Your task to perform on an android device: Go to calendar. Show me events next week Image 0: 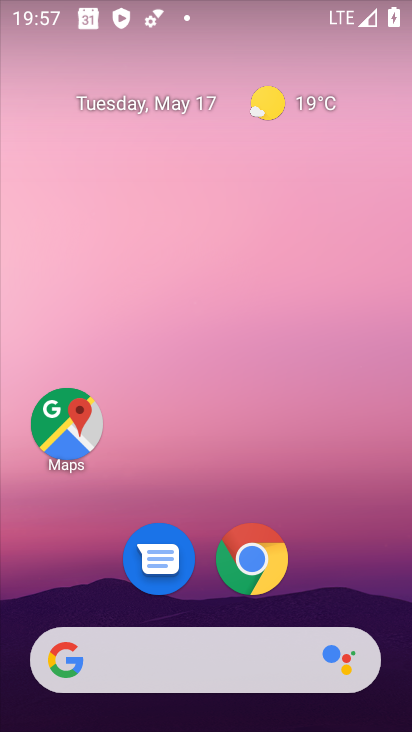
Step 0: drag from (202, 610) to (6, 101)
Your task to perform on an android device: Go to calendar. Show me events next week Image 1: 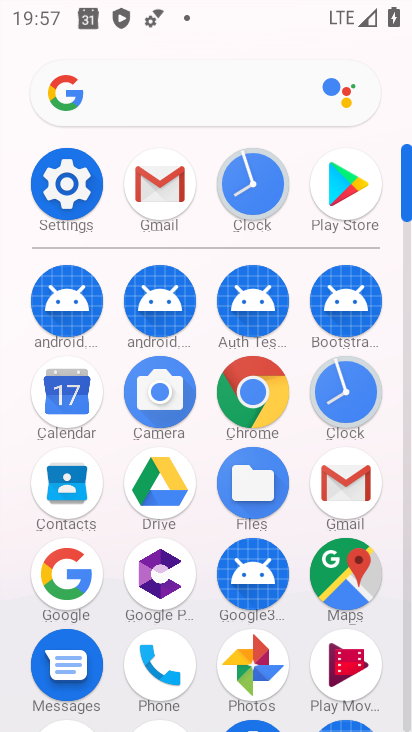
Step 1: drag from (187, 626) to (271, 121)
Your task to perform on an android device: Go to calendar. Show me events next week Image 2: 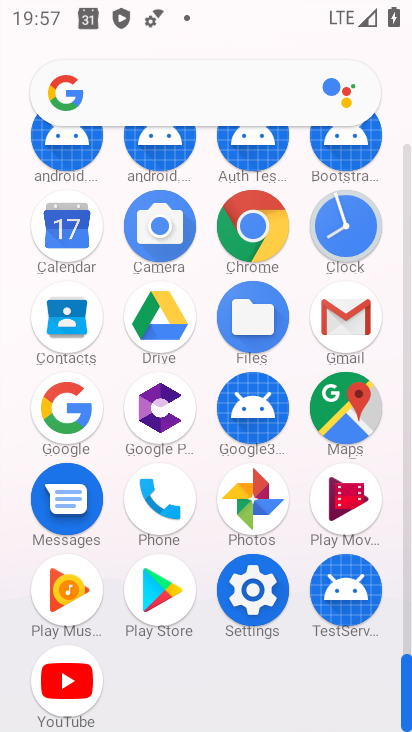
Step 2: click (53, 236)
Your task to perform on an android device: Go to calendar. Show me events next week Image 3: 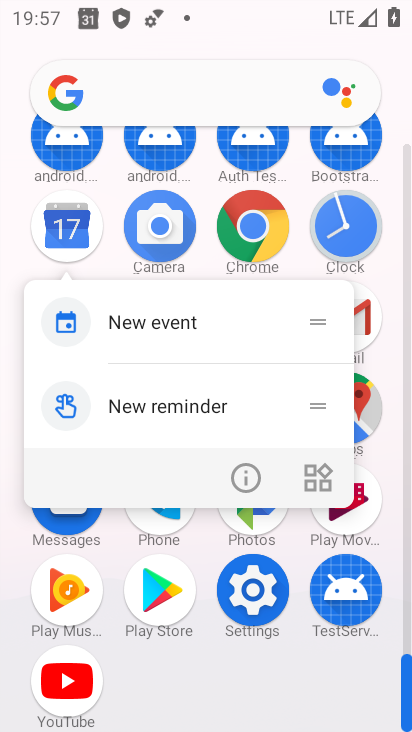
Step 3: click (240, 474)
Your task to perform on an android device: Go to calendar. Show me events next week Image 4: 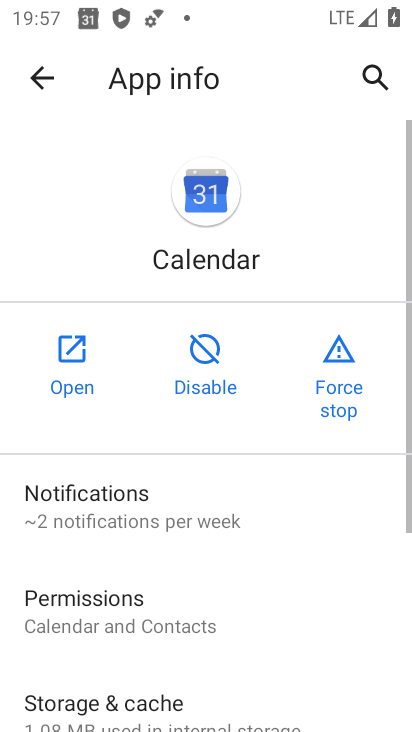
Step 4: click (57, 373)
Your task to perform on an android device: Go to calendar. Show me events next week Image 5: 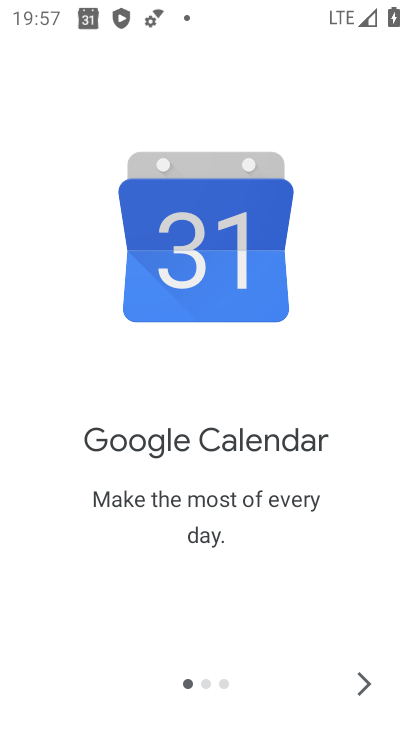
Step 5: click (372, 682)
Your task to perform on an android device: Go to calendar. Show me events next week Image 6: 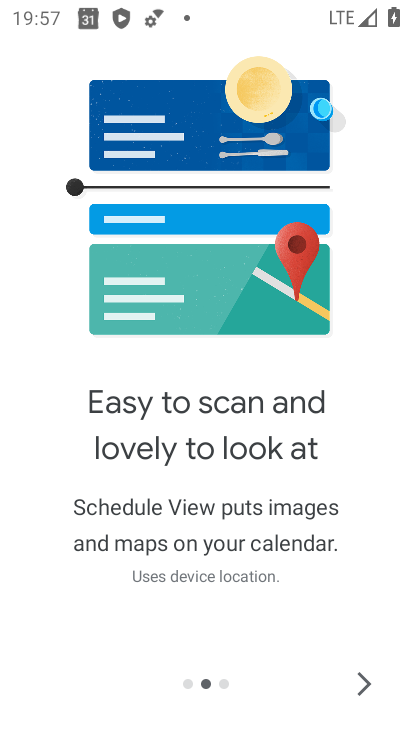
Step 6: click (376, 691)
Your task to perform on an android device: Go to calendar. Show me events next week Image 7: 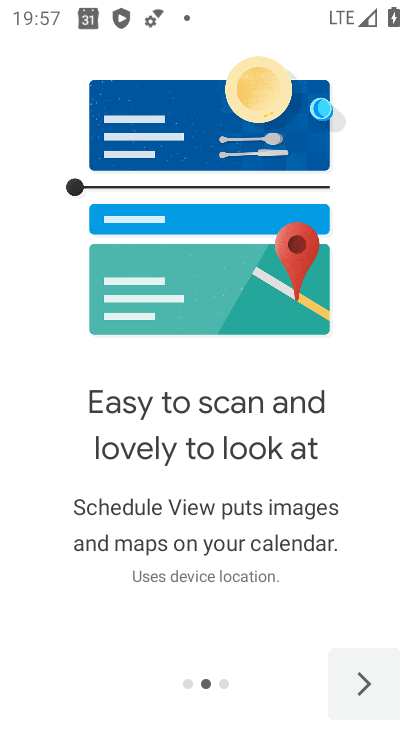
Step 7: click (376, 691)
Your task to perform on an android device: Go to calendar. Show me events next week Image 8: 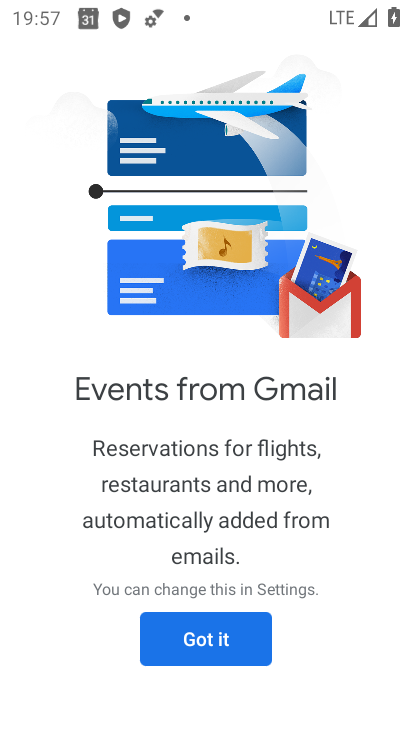
Step 8: click (201, 655)
Your task to perform on an android device: Go to calendar. Show me events next week Image 9: 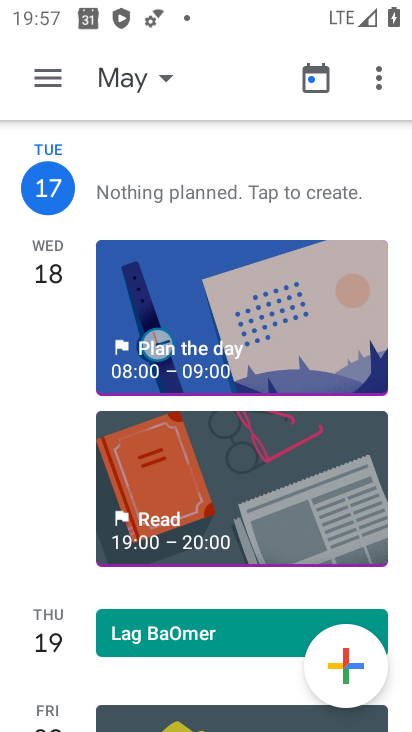
Step 9: click (42, 65)
Your task to perform on an android device: Go to calendar. Show me events next week Image 10: 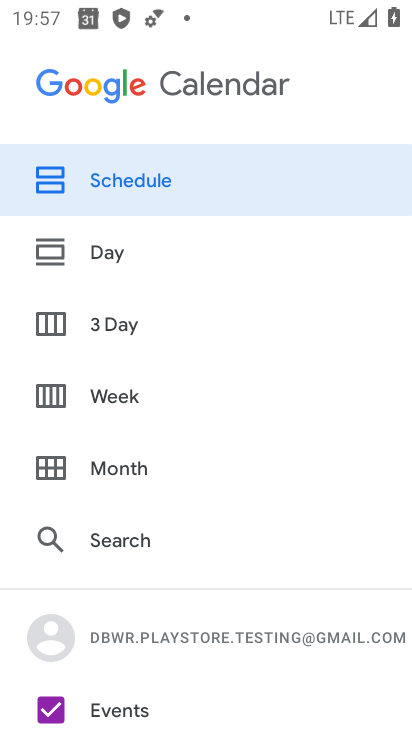
Step 10: drag from (204, 472) to (283, 80)
Your task to perform on an android device: Go to calendar. Show me events next week Image 11: 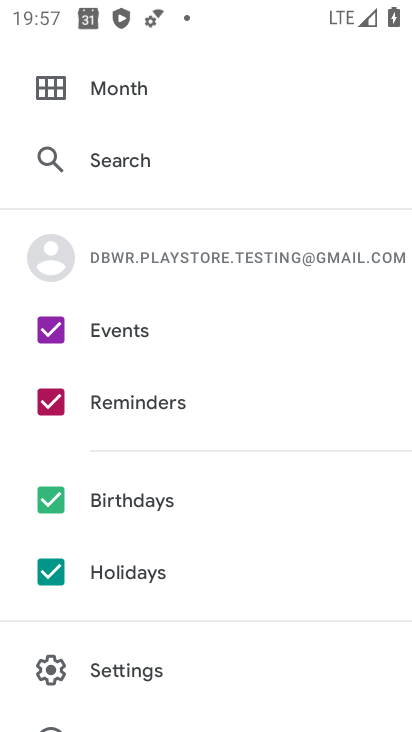
Step 11: drag from (181, 299) to (178, 613)
Your task to perform on an android device: Go to calendar. Show me events next week Image 12: 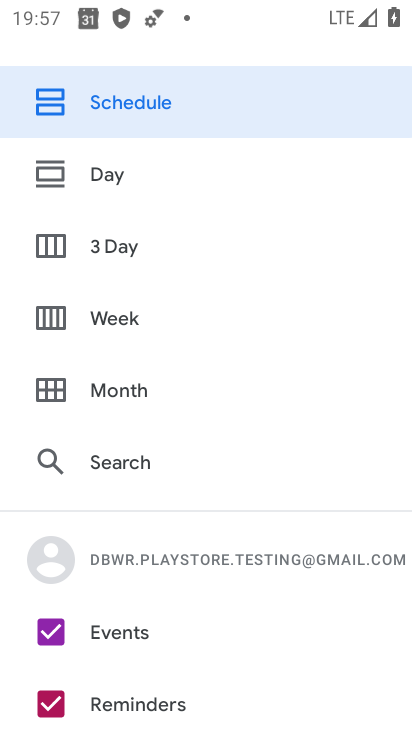
Step 12: click (139, 326)
Your task to perform on an android device: Go to calendar. Show me events next week Image 13: 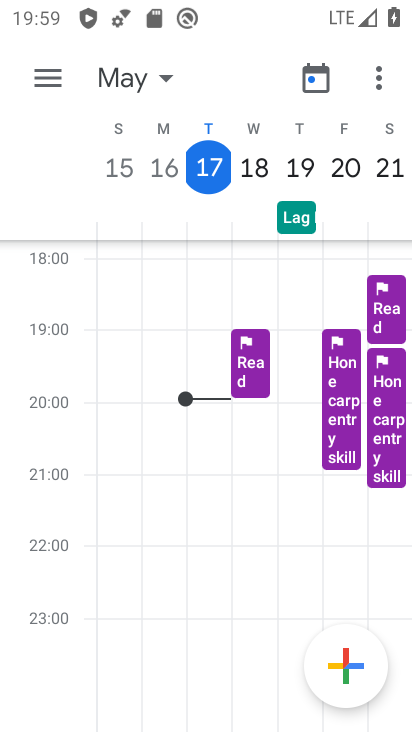
Step 13: click (149, 85)
Your task to perform on an android device: Go to calendar. Show me events next week Image 14: 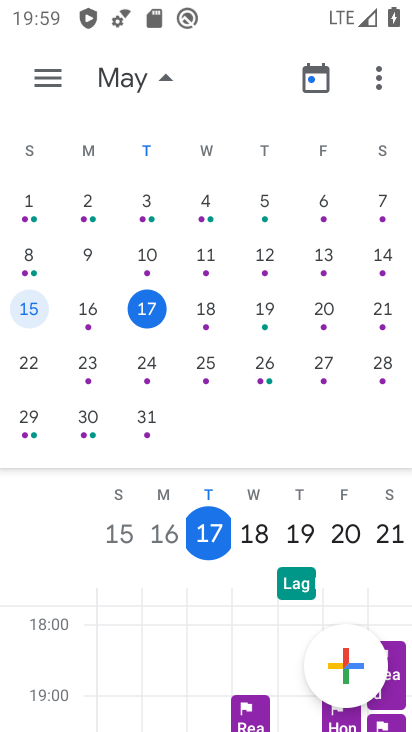
Step 14: drag from (383, 280) to (2, 266)
Your task to perform on an android device: Go to calendar. Show me events next week Image 15: 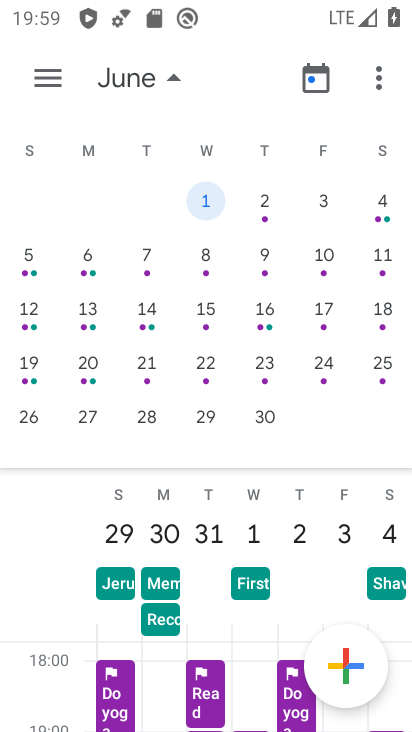
Step 15: click (317, 257)
Your task to perform on an android device: Go to calendar. Show me events next week Image 16: 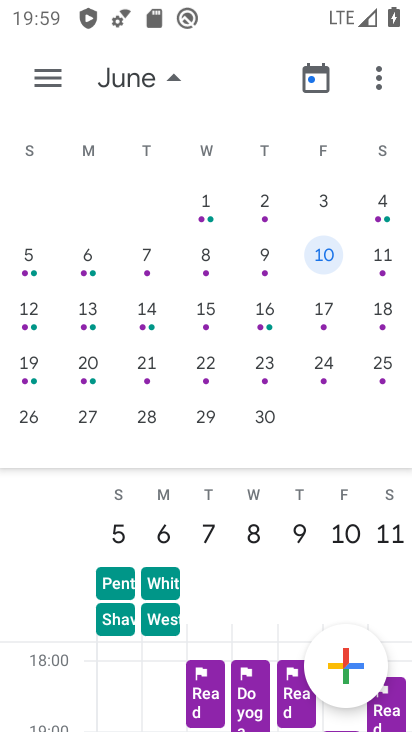
Step 16: click (317, 200)
Your task to perform on an android device: Go to calendar. Show me events next week Image 17: 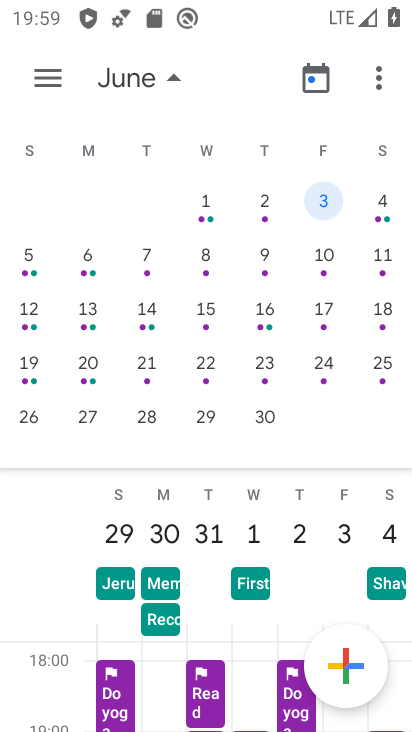
Step 17: drag from (86, 309) to (411, 310)
Your task to perform on an android device: Go to calendar. Show me events next week Image 18: 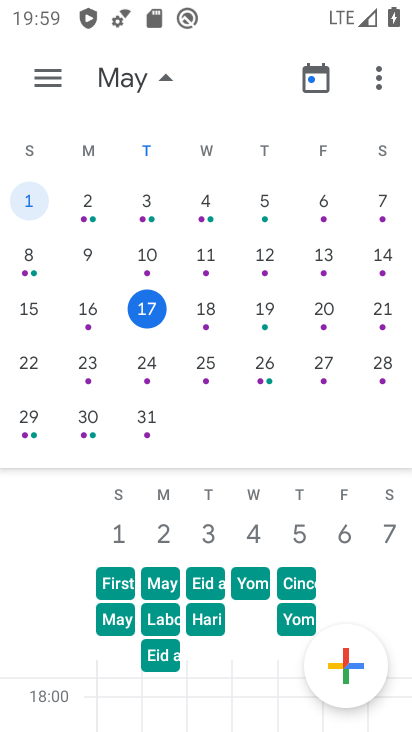
Step 18: click (205, 365)
Your task to perform on an android device: Go to calendar. Show me events next week Image 19: 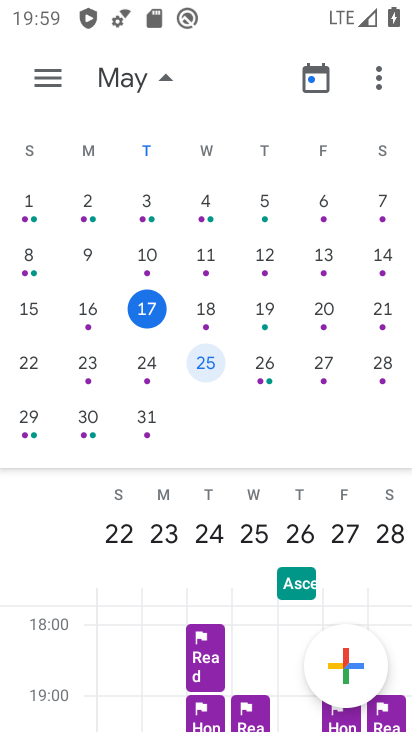
Step 19: task complete